Your task to perform on an android device: Open maps Image 0: 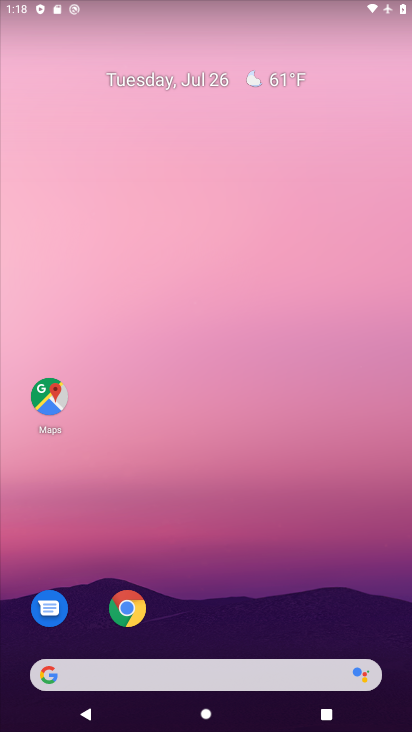
Step 0: drag from (247, 620) to (226, 208)
Your task to perform on an android device: Open maps Image 1: 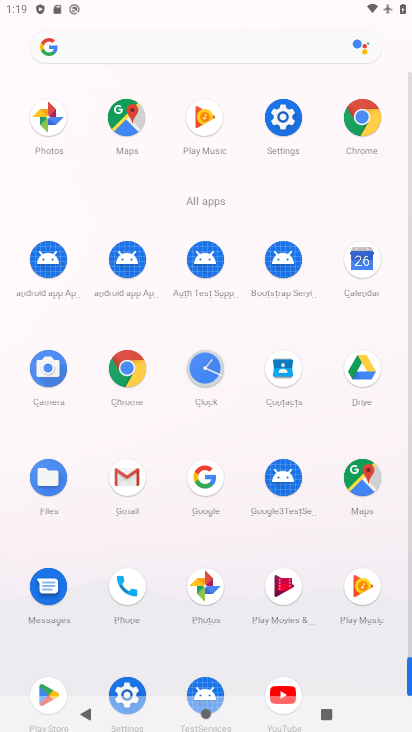
Step 1: click (364, 491)
Your task to perform on an android device: Open maps Image 2: 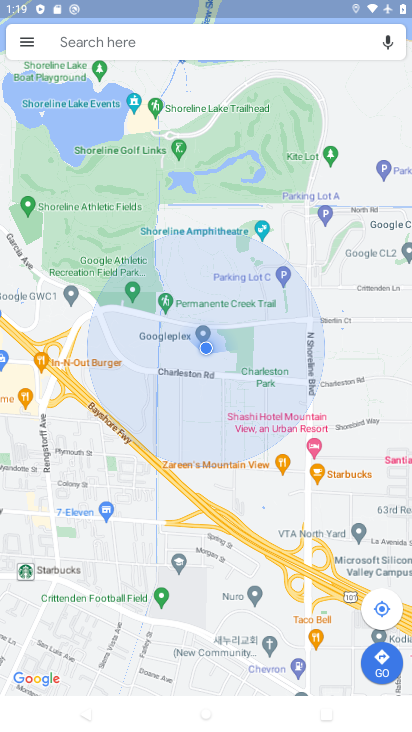
Step 2: task complete